Your task to perform on an android device: install app "Truecaller" Image 0: 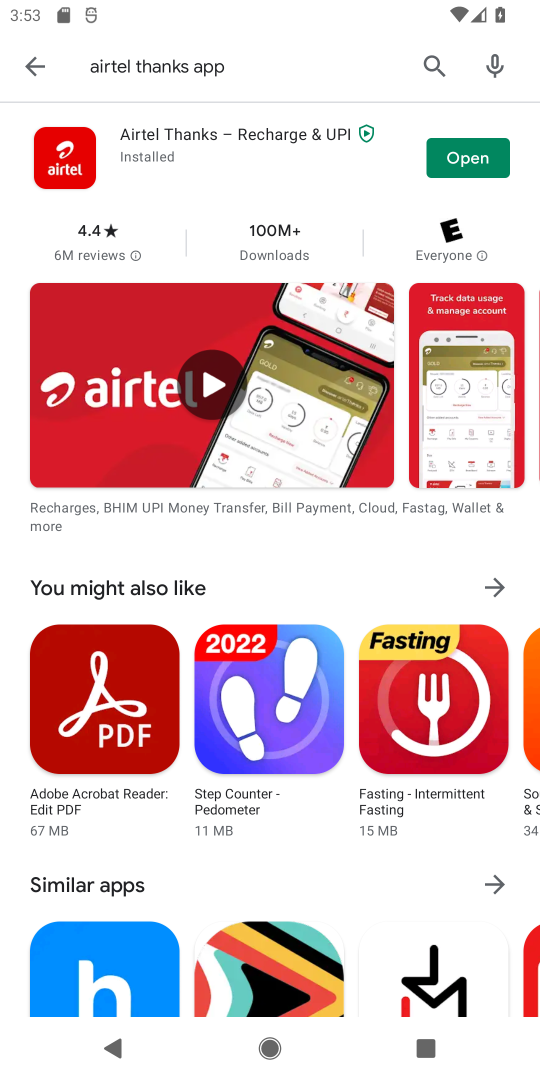
Step 0: click (423, 58)
Your task to perform on an android device: install app "Truecaller" Image 1: 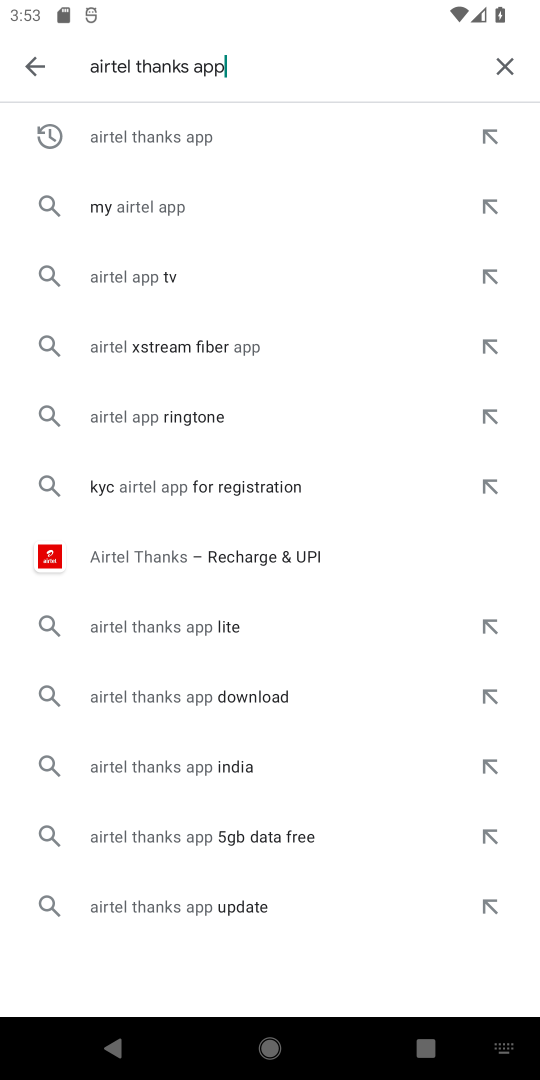
Step 1: click (497, 72)
Your task to perform on an android device: install app "Truecaller" Image 2: 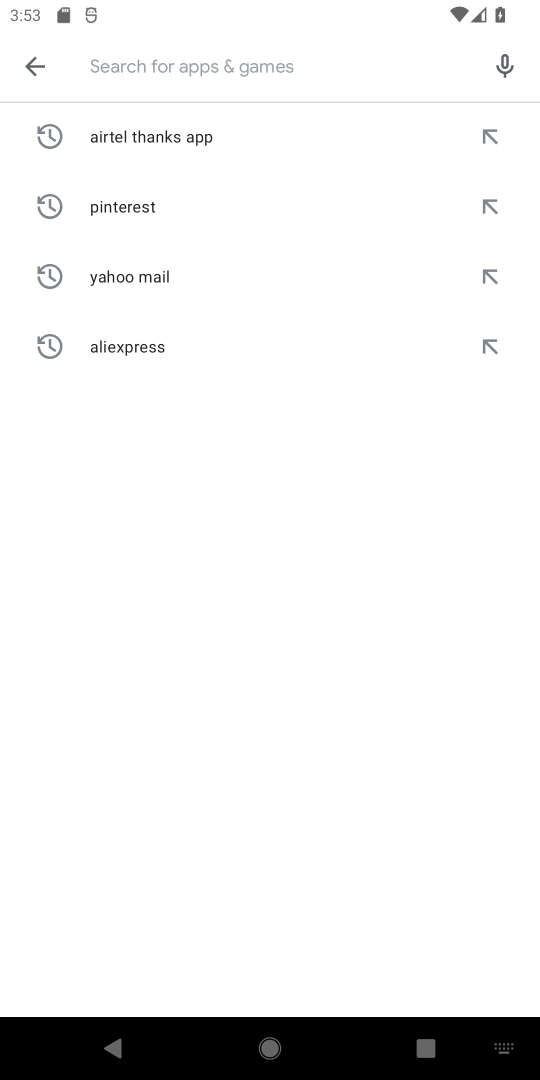
Step 2: type "Truecaller"
Your task to perform on an android device: install app "Truecaller" Image 3: 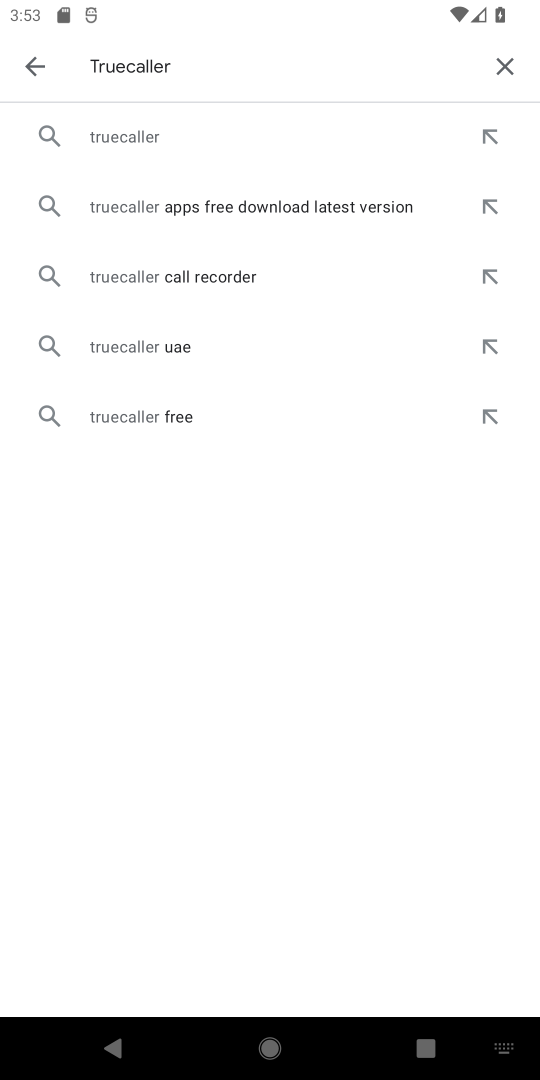
Step 3: click (145, 134)
Your task to perform on an android device: install app "Truecaller" Image 4: 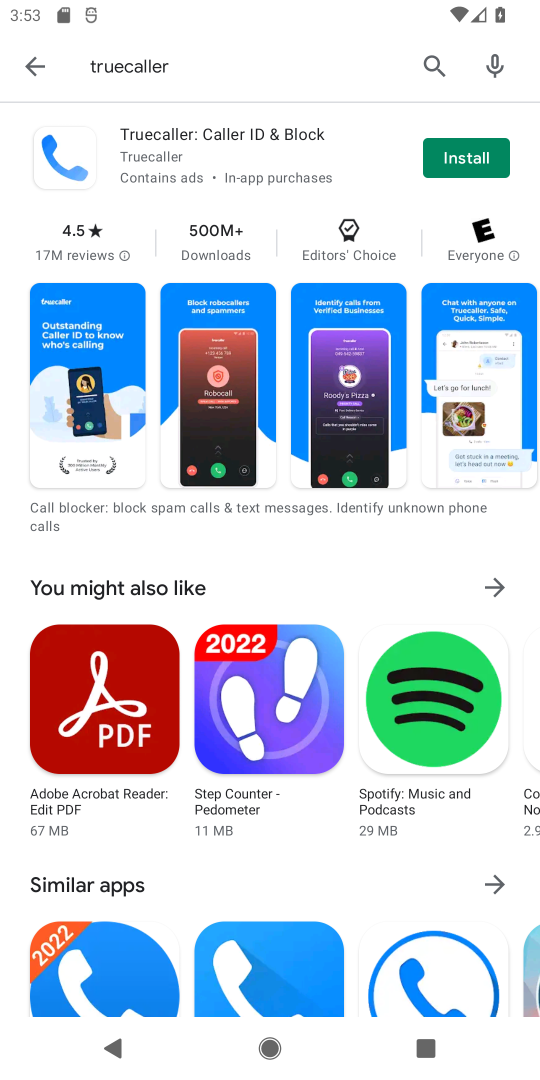
Step 4: click (457, 151)
Your task to perform on an android device: install app "Truecaller" Image 5: 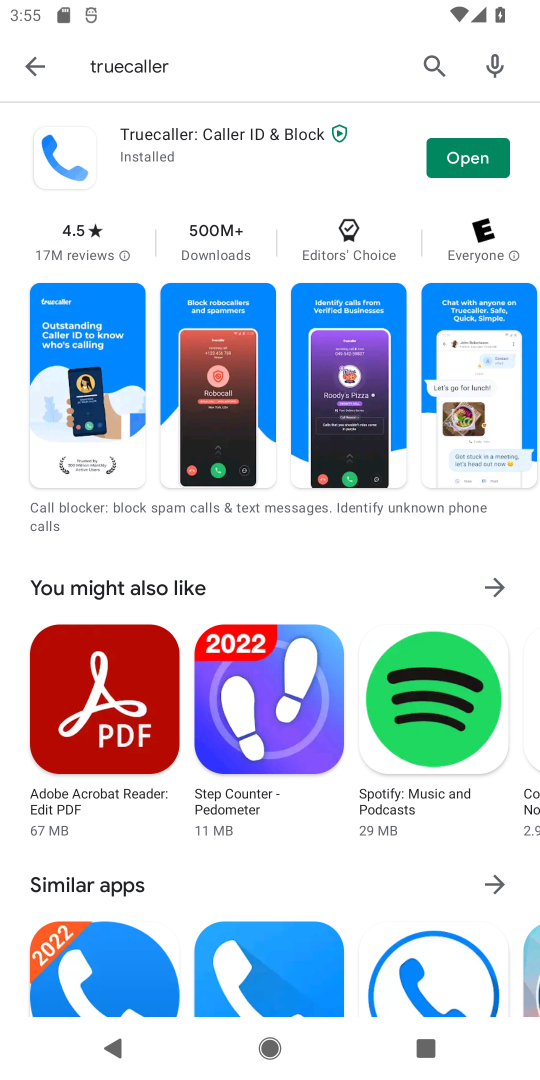
Step 5: task complete